Your task to perform on an android device: turn off improve location accuracy Image 0: 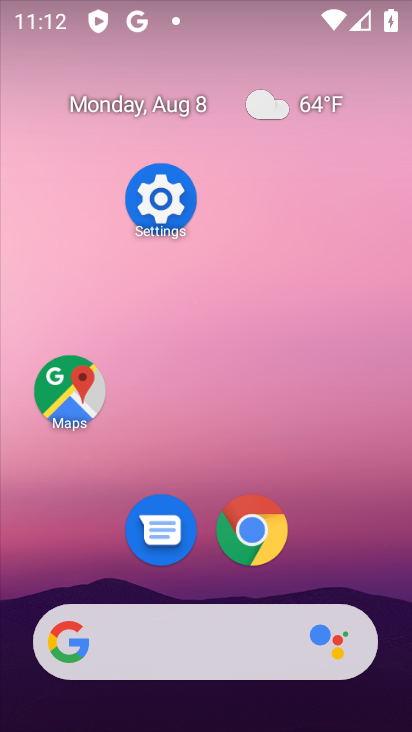
Step 0: click (109, 219)
Your task to perform on an android device: turn off improve location accuracy Image 1: 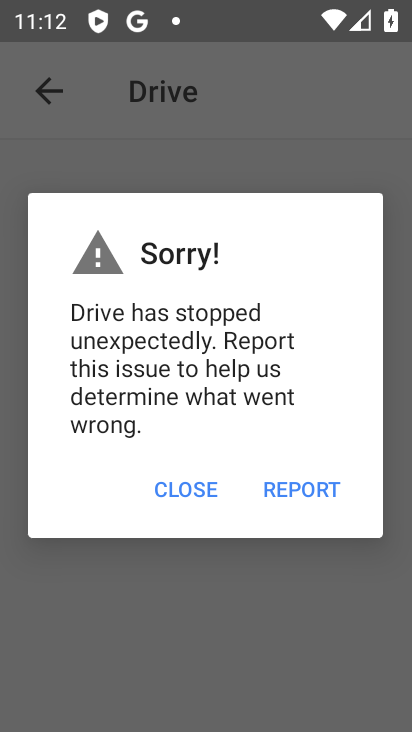
Step 1: click (204, 489)
Your task to perform on an android device: turn off improve location accuracy Image 2: 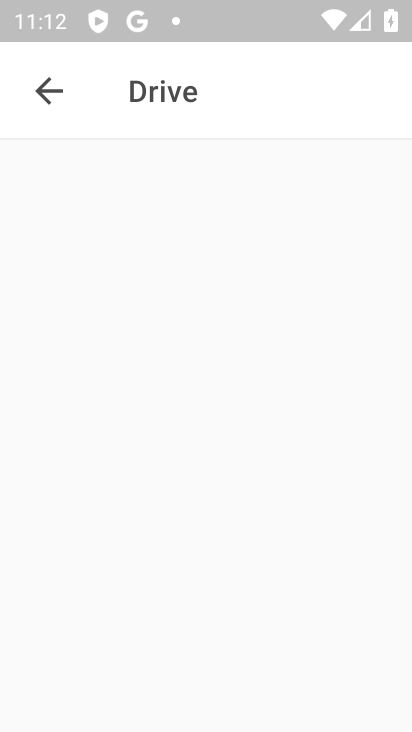
Step 2: click (203, 487)
Your task to perform on an android device: turn off improve location accuracy Image 3: 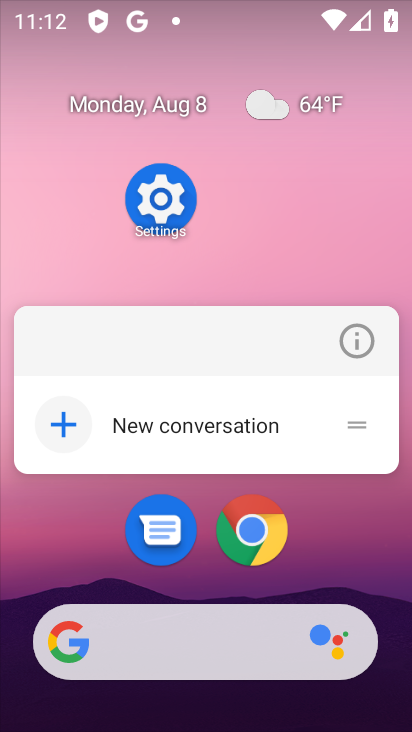
Step 3: drag from (180, 567) to (152, 262)
Your task to perform on an android device: turn off improve location accuracy Image 4: 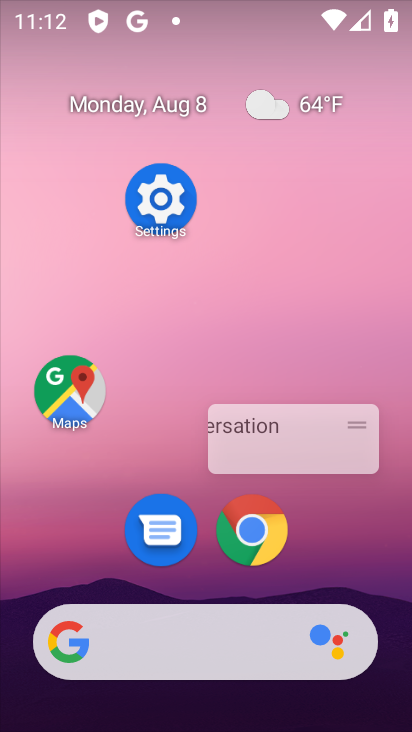
Step 4: drag from (206, 540) to (186, 123)
Your task to perform on an android device: turn off improve location accuracy Image 5: 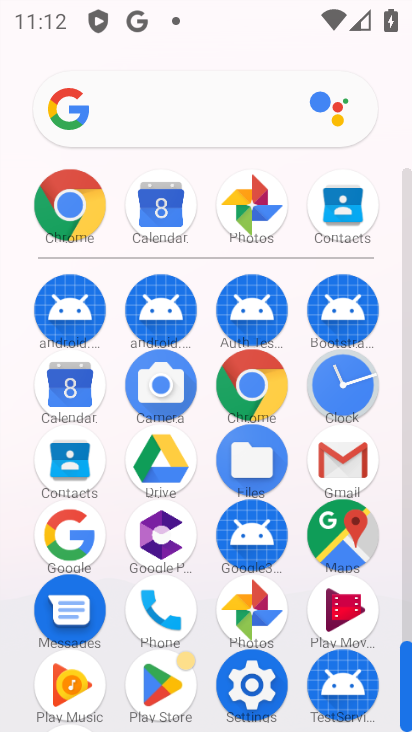
Step 5: drag from (166, 444) to (118, 98)
Your task to perform on an android device: turn off improve location accuracy Image 6: 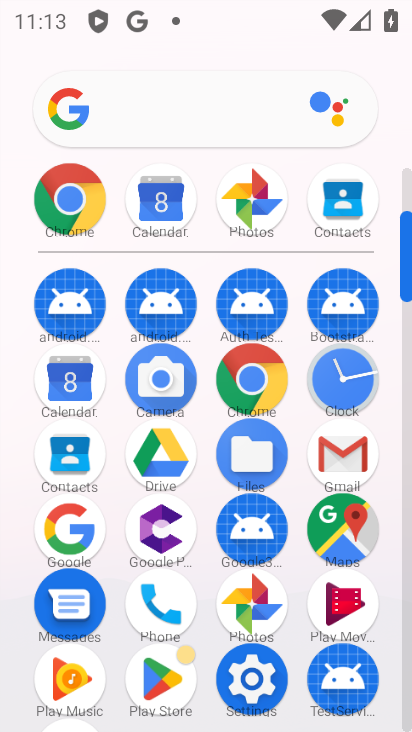
Step 6: click (249, 680)
Your task to perform on an android device: turn off improve location accuracy Image 7: 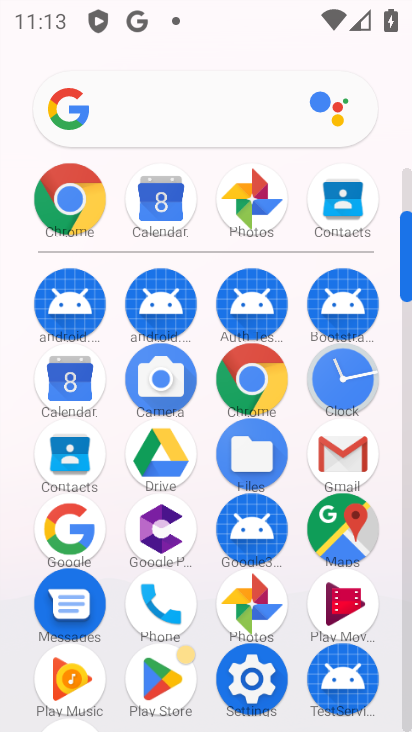
Step 7: click (249, 680)
Your task to perform on an android device: turn off improve location accuracy Image 8: 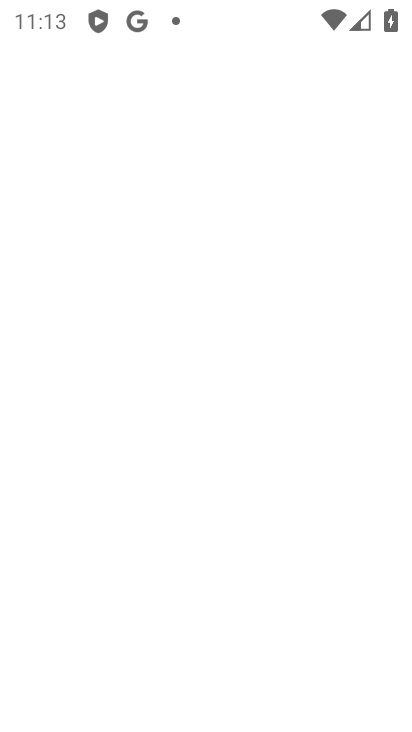
Step 8: click (249, 680)
Your task to perform on an android device: turn off improve location accuracy Image 9: 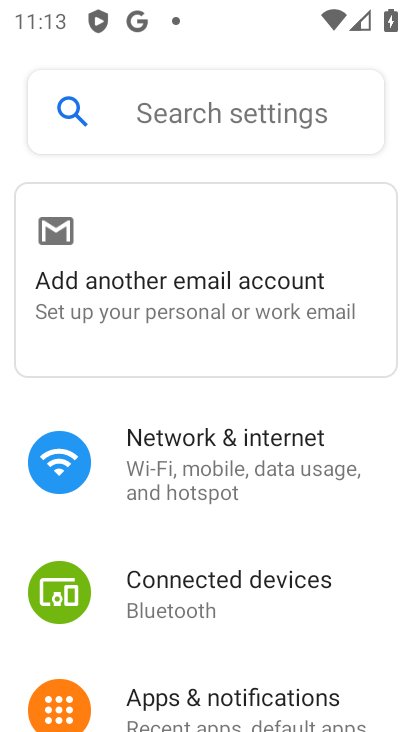
Step 9: drag from (183, 603) to (160, 381)
Your task to perform on an android device: turn off improve location accuracy Image 10: 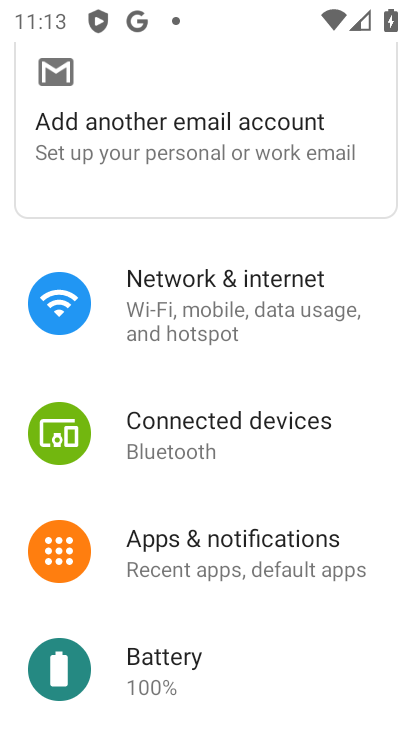
Step 10: drag from (197, 679) to (197, 466)
Your task to perform on an android device: turn off improve location accuracy Image 11: 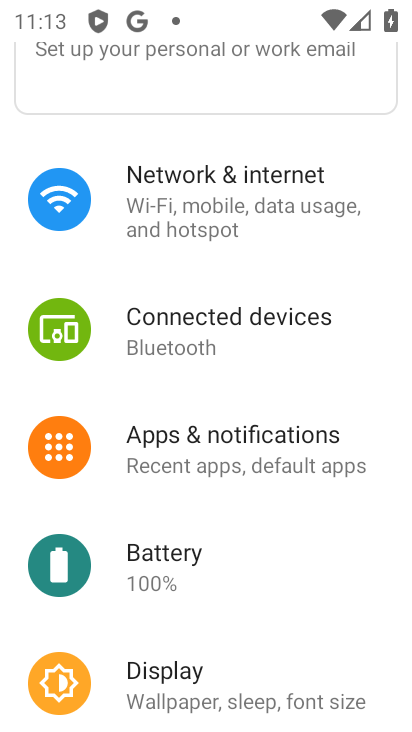
Step 11: drag from (244, 539) to (275, 230)
Your task to perform on an android device: turn off improve location accuracy Image 12: 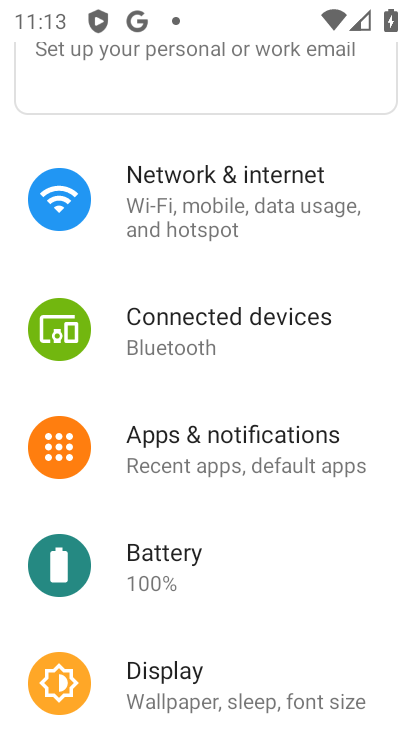
Step 12: drag from (208, 475) to (170, 90)
Your task to perform on an android device: turn off improve location accuracy Image 13: 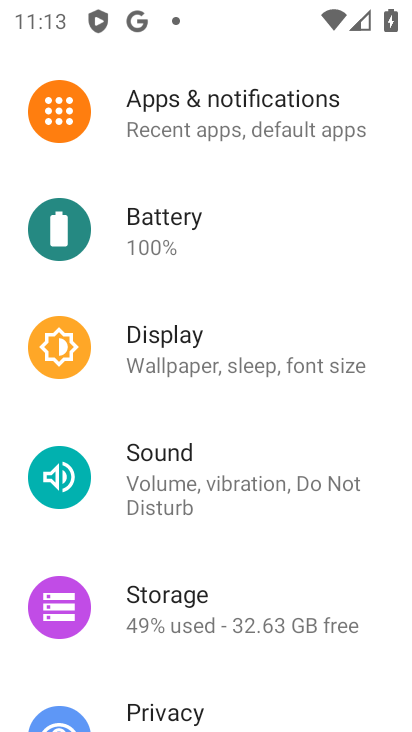
Step 13: drag from (226, 411) to (224, 128)
Your task to perform on an android device: turn off improve location accuracy Image 14: 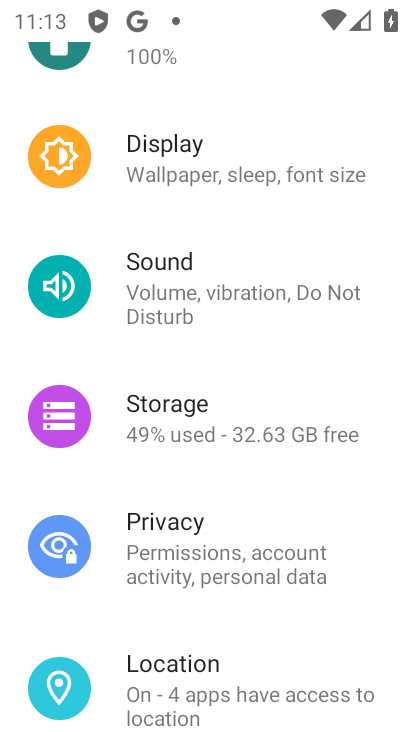
Step 14: drag from (231, 359) to (242, 146)
Your task to perform on an android device: turn off improve location accuracy Image 15: 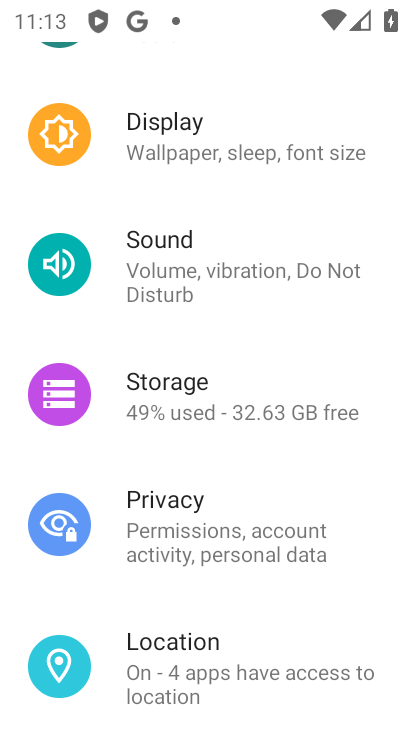
Step 15: click (181, 672)
Your task to perform on an android device: turn off improve location accuracy Image 16: 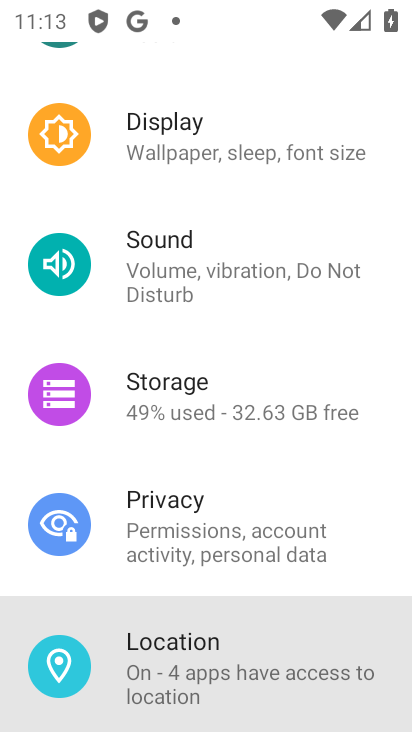
Step 16: click (181, 672)
Your task to perform on an android device: turn off improve location accuracy Image 17: 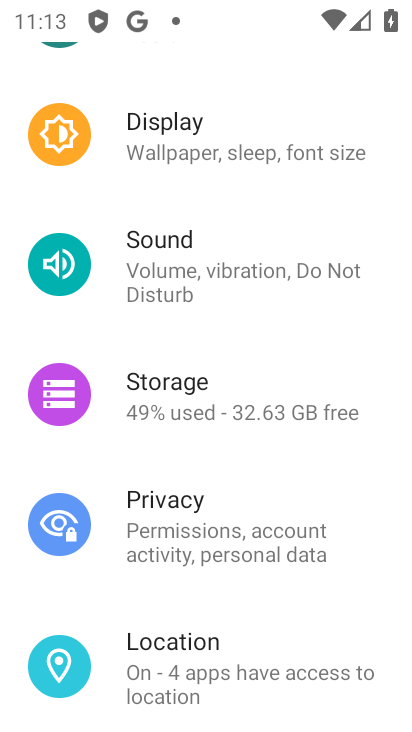
Step 17: click (186, 681)
Your task to perform on an android device: turn off improve location accuracy Image 18: 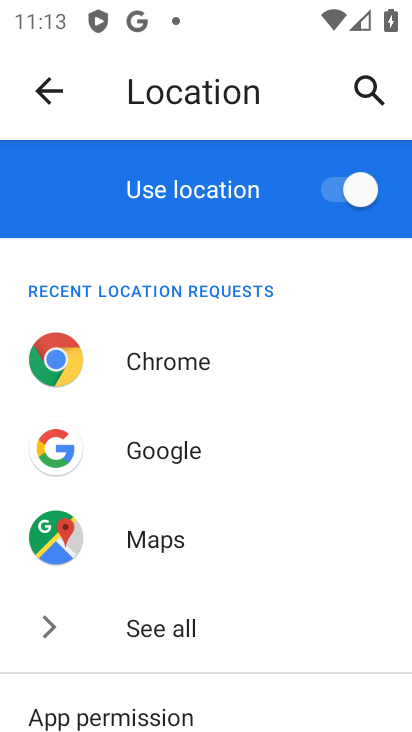
Step 18: drag from (220, 496) to (228, 340)
Your task to perform on an android device: turn off improve location accuracy Image 19: 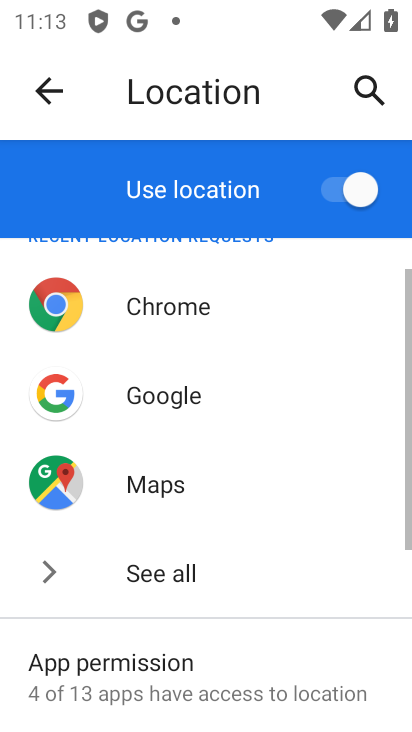
Step 19: drag from (244, 485) to (209, 210)
Your task to perform on an android device: turn off improve location accuracy Image 20: 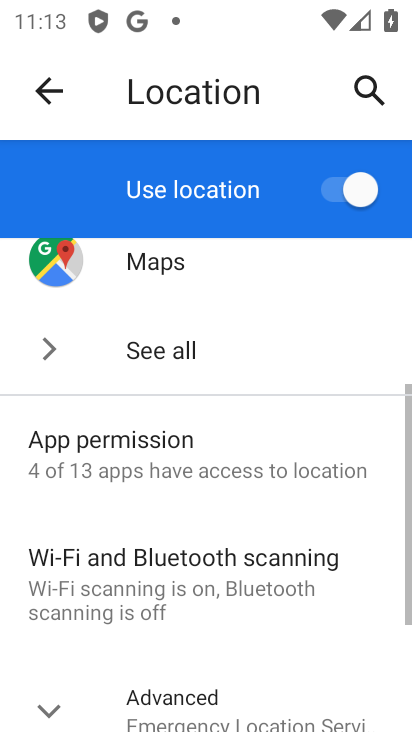
Step 20: drag from (225, 489) to (226, 253)
Your task to perform on an android device: turn off improve location accuracy Image 21: 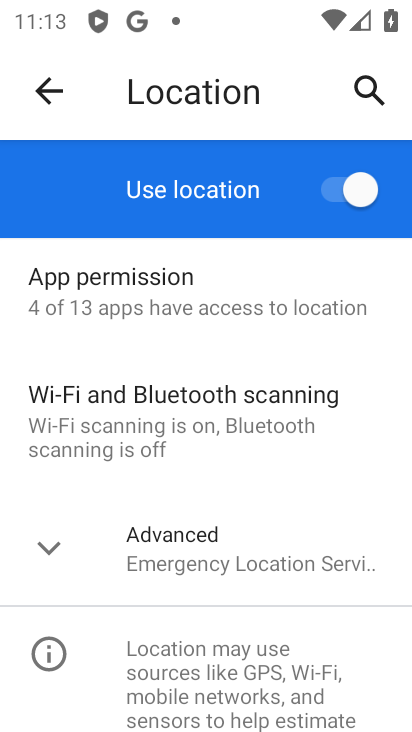
Step 21: click (188, 588)
Your task to perform on an android device: turn off improve location accuracy Image 22: 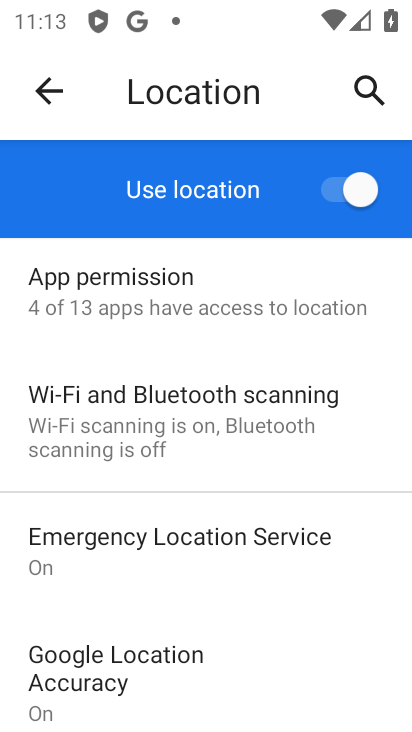
Step 22: drag from (179, 713) to (187, 477)
Your task to perform on an android device: turn off improve location accuracy Image 23: 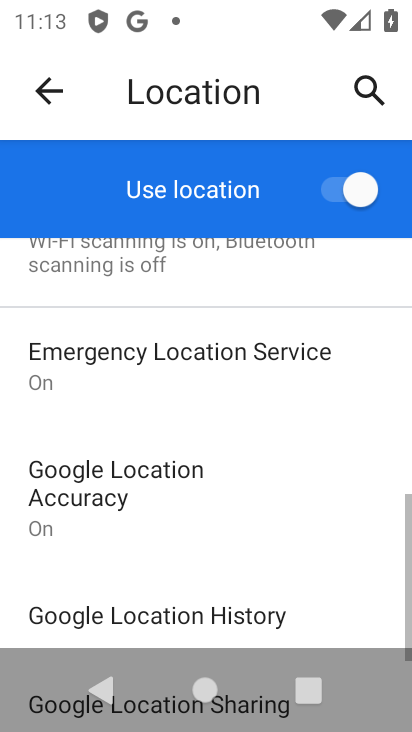
Step 23: drag from (224, 680) to (250, 473)
Your task to perform on an android device: turn off improve location accuracy Image 24: 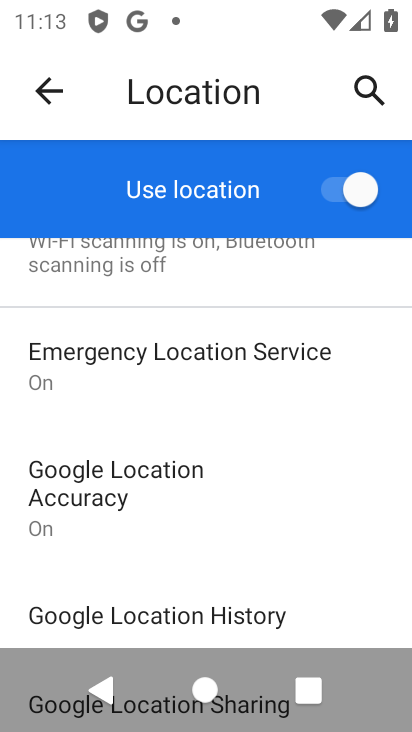
Step 24: drag from (262, 479) to (259, 425)
Your task to perform on an android device: turn off improve location accuracy Image 25: 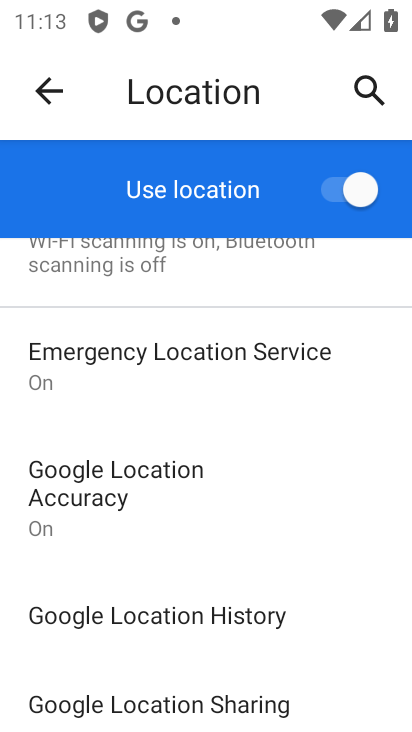
Step 25: click (96, 490)
Your task to perform on an android device: turn off improve location accuracy Image 26: 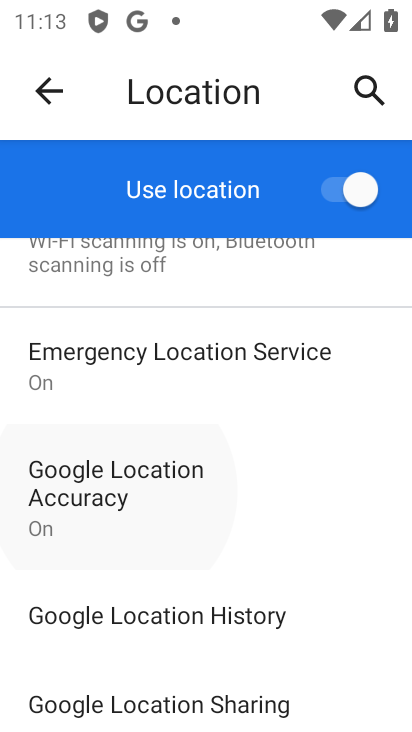
Step 26: click (96, 490)
Your task to perform on an android device: turn off improve location accuracy Image 27: 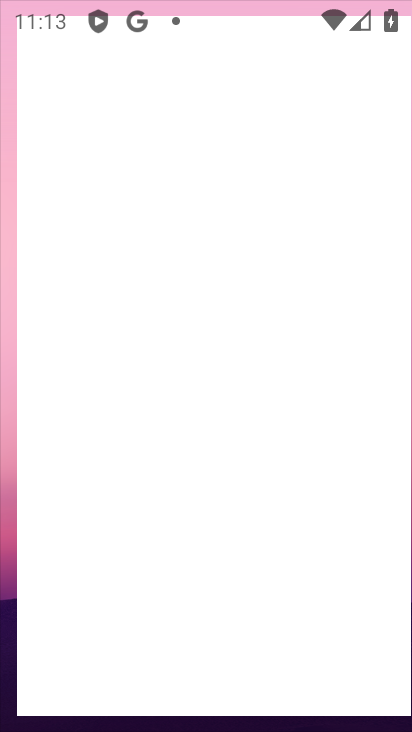
Step 27: click (99, 499)
Your task to perform on an android device: turn off improve location accuracy Image 28: 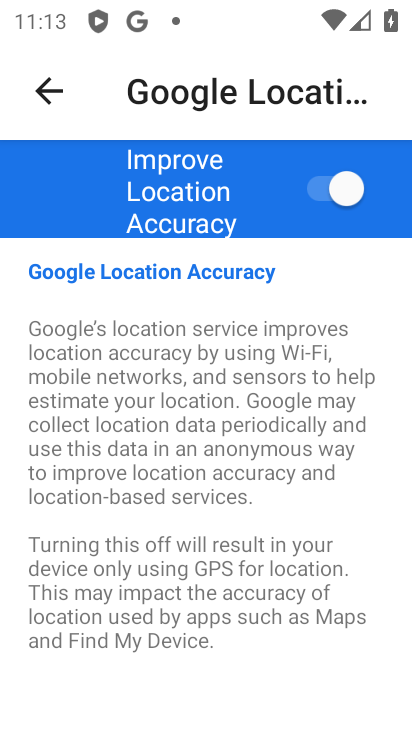
Step 28: click (49, 87)
Your task to perform on an android device: turn off improve location accuracy Image 29: 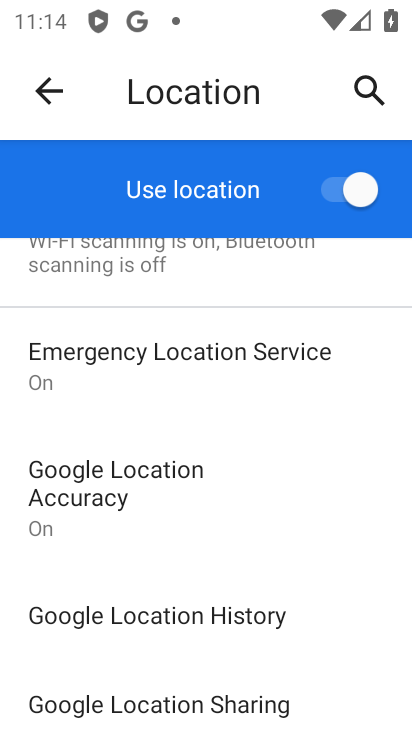
Step 29: click (78, 487)
Your task to perform on an android device: turn off improve location accuracy Image 30: 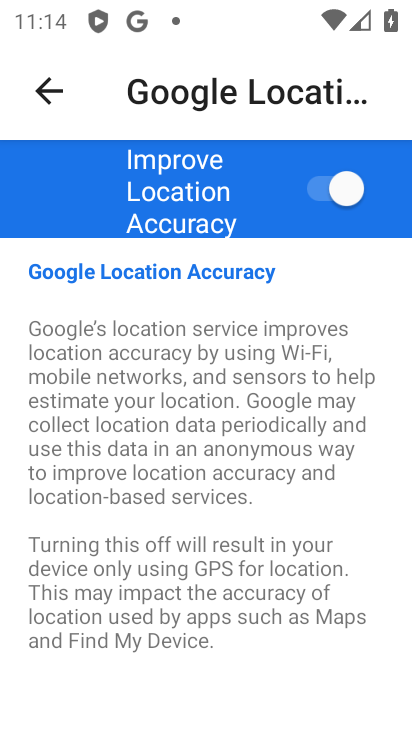
Step 30: click (332, 185)
Your task to perform on an android device: turn off improve location accuracy Image 31: 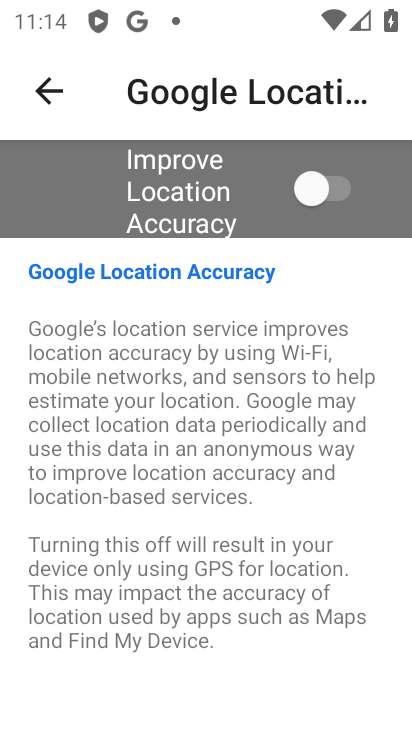
Step 31: task complete